Your task to perform on an android device: turn on showing notifications on the lock screen Image 0: 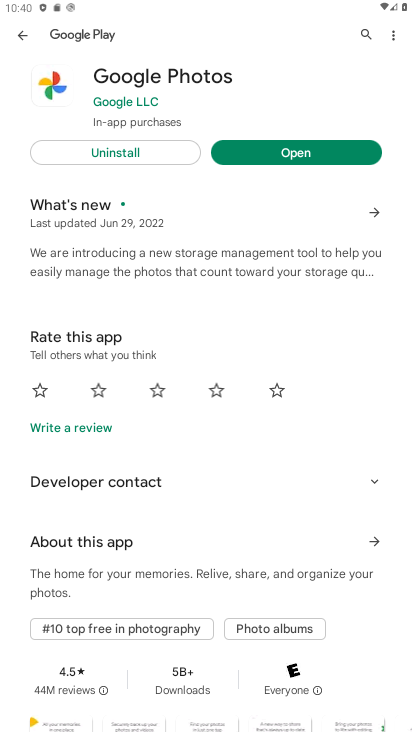
Step 0: press home button
Your task to perform on an android device: turn on showing notifications on the lock screen Image 1: 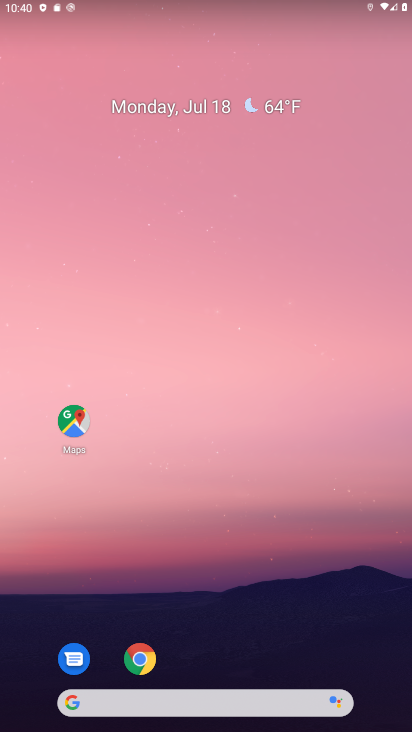
Step 1: drag from (133, 714) to (260, 14)
Your task to perform on an android device: turn on showing notifications on the lock screen Image 2: 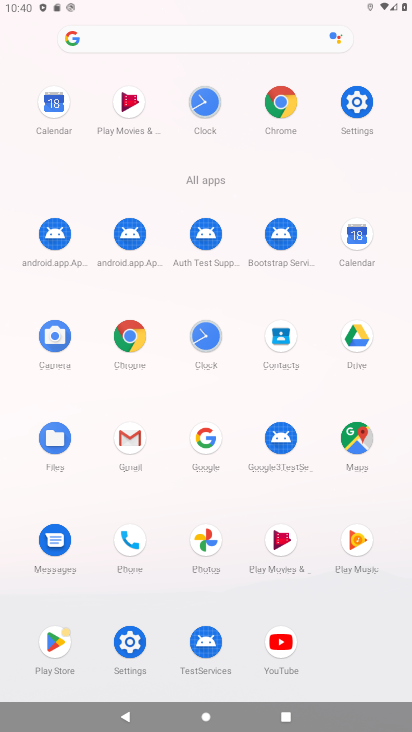
Step 2: click (361, 90)
Your task to perform on an android device: turn on showing notifications on the lock screen Image 3: 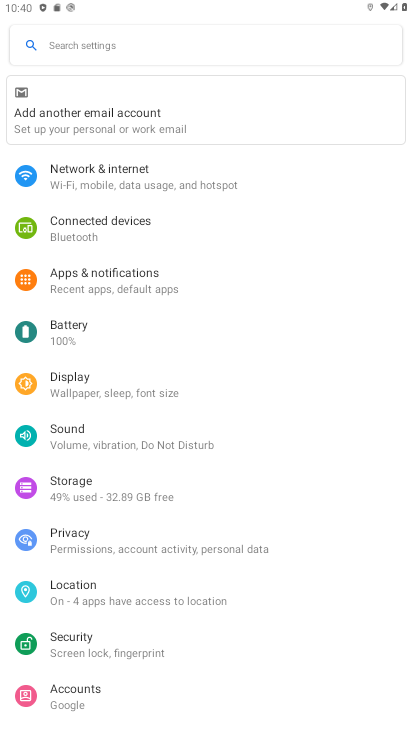
Step 3: click (92, 281)
Your task to perform on an android device: turn on showing notifications on the lock screen Image 4: 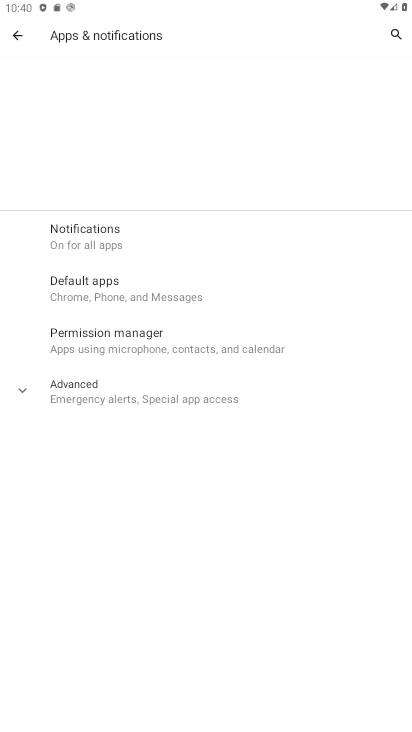
Step 4: click (97, 231)
Your task to perform on an android device: turn on showing notifications on the lock screen Image 5: 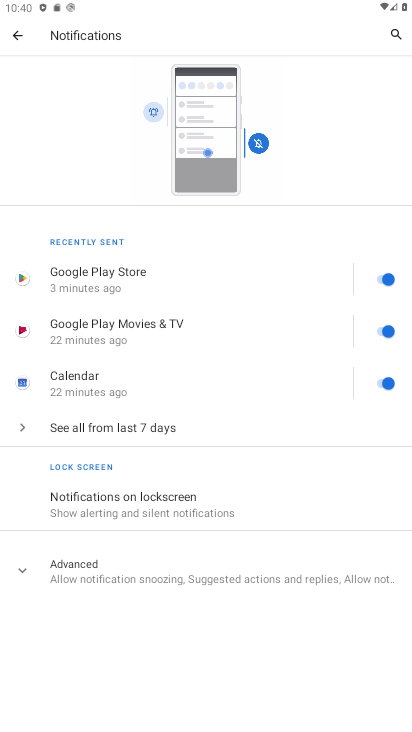
Step 5: click (133, 506)
Your task to perform on an android device: turn on showing notifications on the lock screen Image 6: 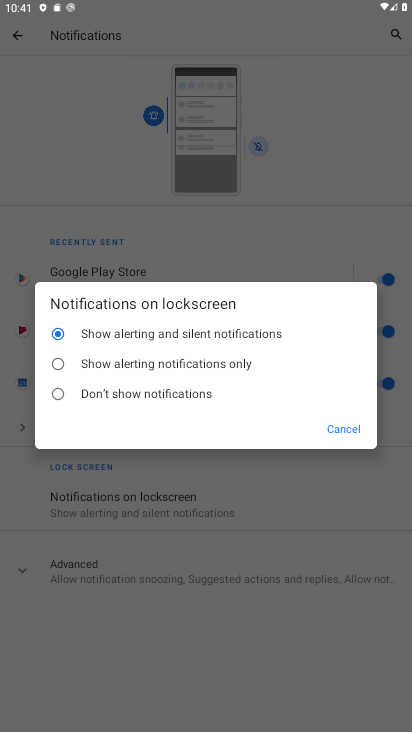
Step 6: task complete